Your task to perform on an android device: snooze an email in the gmail app Image 0: 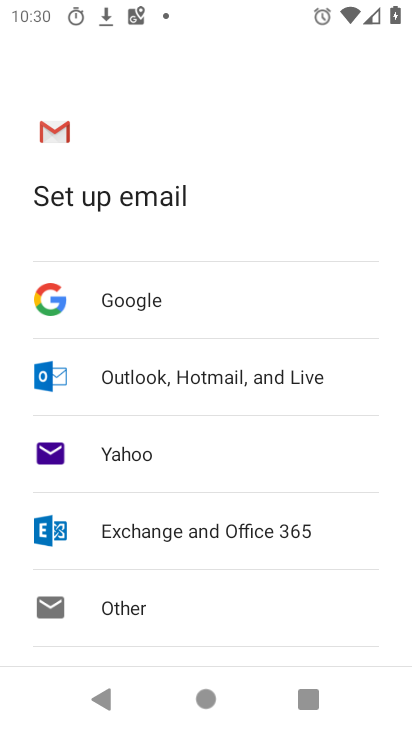
Step 0: press home button
Your task to perform on an android device: snooze an email in the gmail app Image 1: 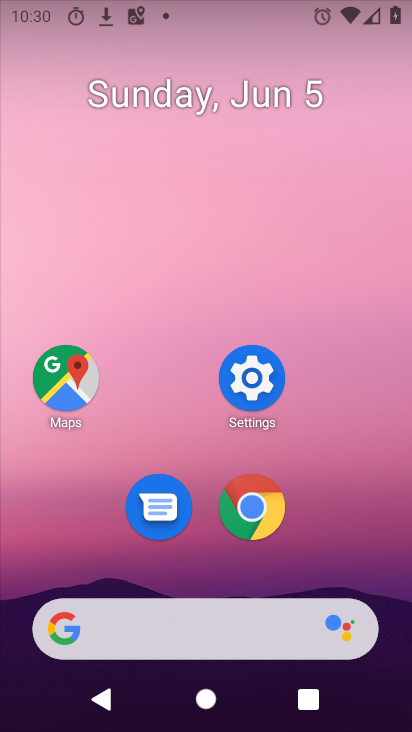
Step 1: drag from (222, 657) to (215, 298)
Your task to perform on an android device: snooze an email in the gmail app Image 2: 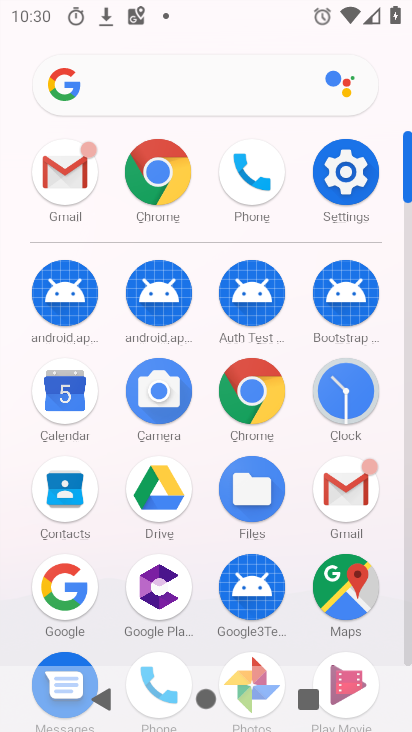
Step 2: click (56, 179)
Your task to perform on an android device: snooze an email in the gmail app Image 3: 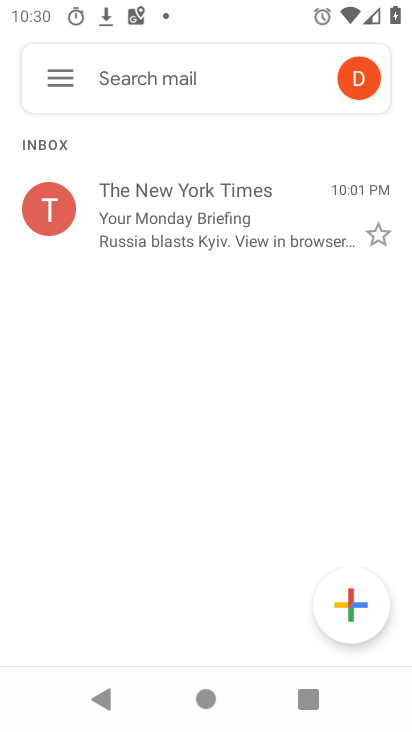
Step 3: click (62, 93)
Your task to perform on an android device: snooze an email in the gmail app Image 4: 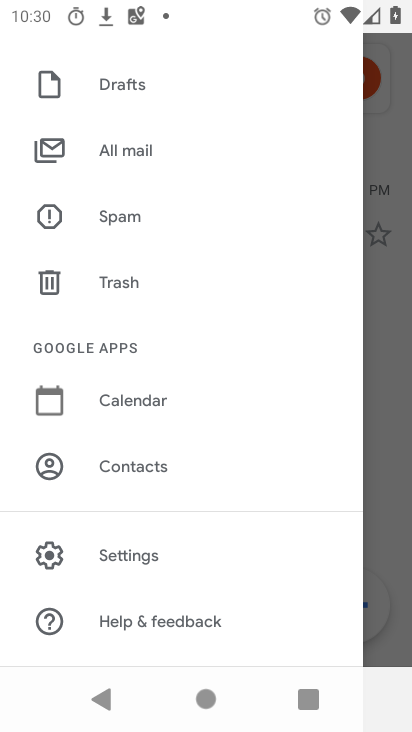
Step 4: click (131, 550)
Your task to perform on an android device: snooze an email in the gmail app Image 5: 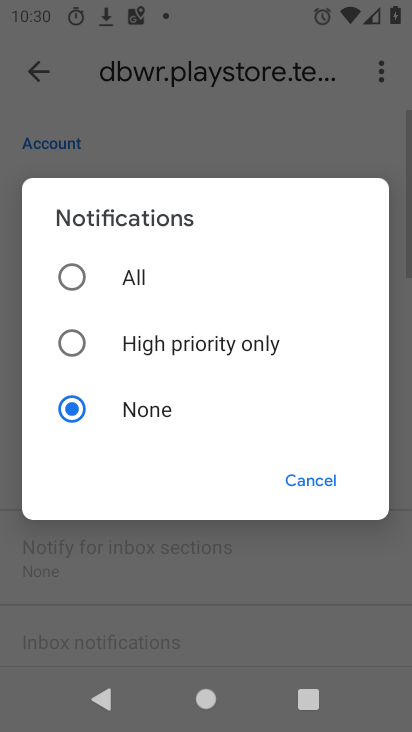
Step 5: click (301, 472)
Your task to perform on an android device: snooze an email in the gmail app Image 6: 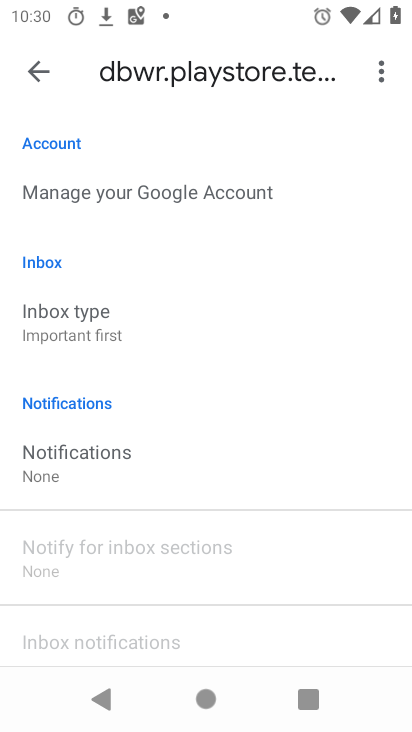
Step 6: click (59, 117)
Your task to perform on an android device: snooze an email in the gmail app Image 7: 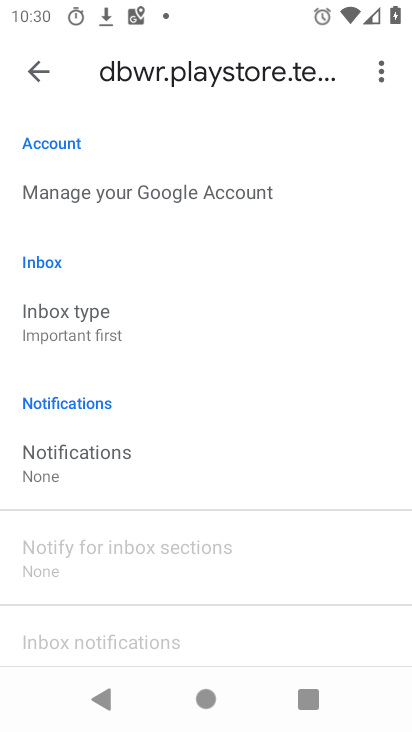
Step 7: click (33, 66)
Your task to perform on an android device: snooze an email in the gmail app Image 8: 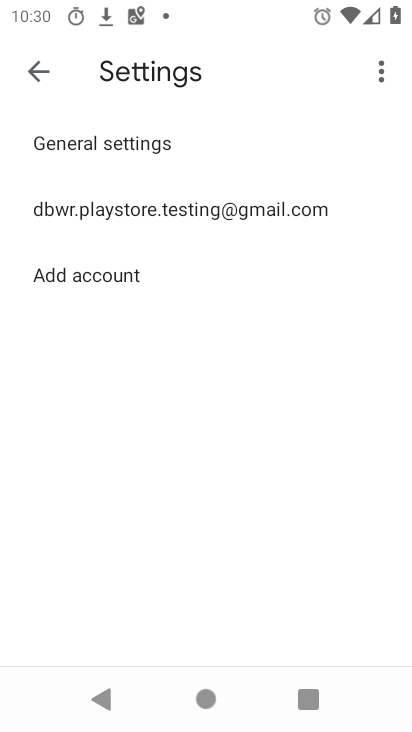
Step 8: click (30, 72)
Your task to perform on an android device: snooze an email in the gmail app Image 9: 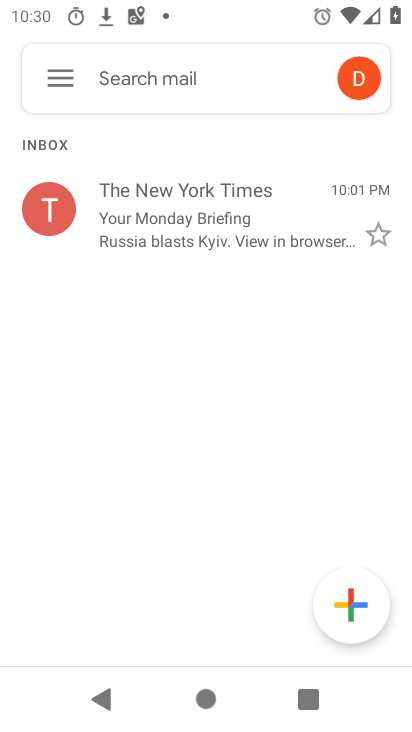
Step 9: click (31, 75)
Your task to perform on an android device: snooze an email in the gmail app Image 10: 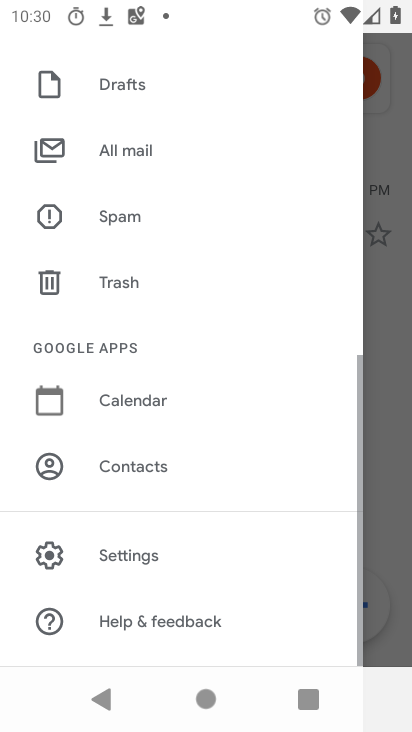
Step 10: drag from (128, 165) to (224, 485)
Your task to perform on an android device: snooze an email in the gmail app Image 11: 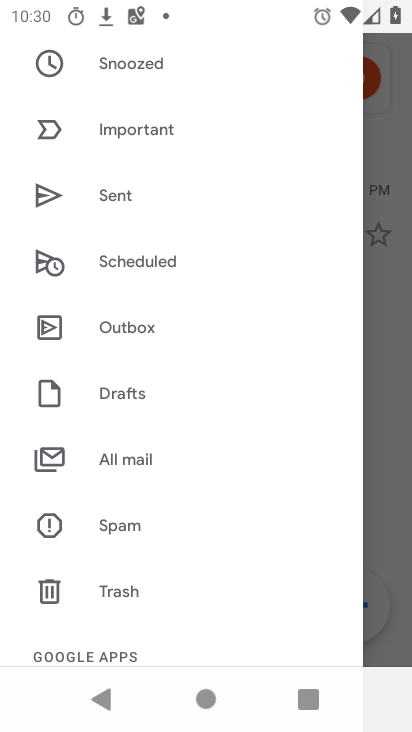
Step 11: click (147, 71)
Your task to perform on an android device: snooze an email in the gmail app Image 12: 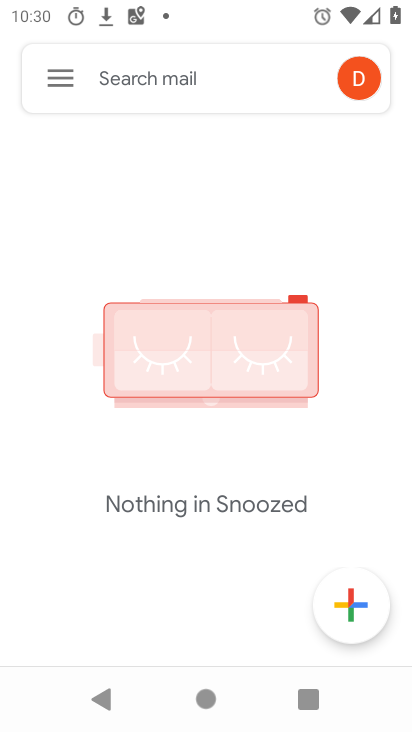
Step 12: task complete